Your task to perform on an android device: empty trash in the gmail app Image 0: 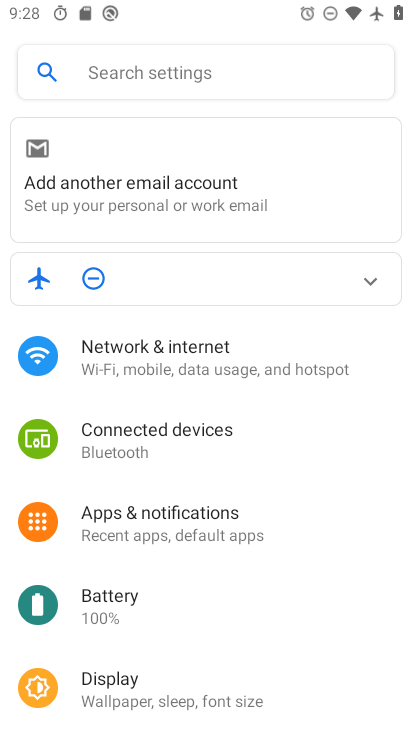
Step 0: press home button
Your task to perform on an android device: empty trash in the gmail app Image 1: 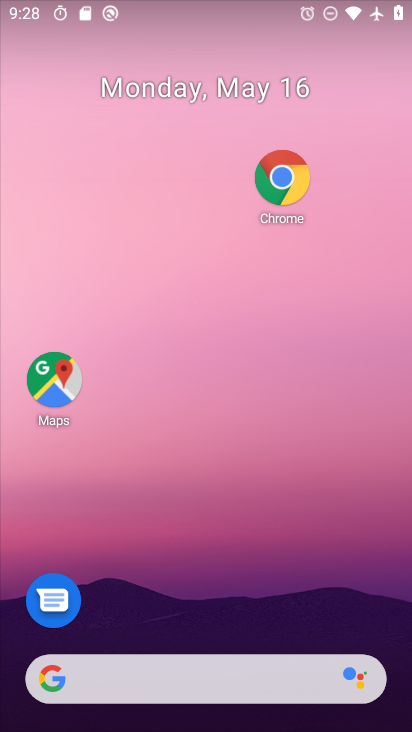
Step 1: drag from (190, 675) to (316, 274)
Your task to perform on an android device: empty trash in the gmail app Image 2: 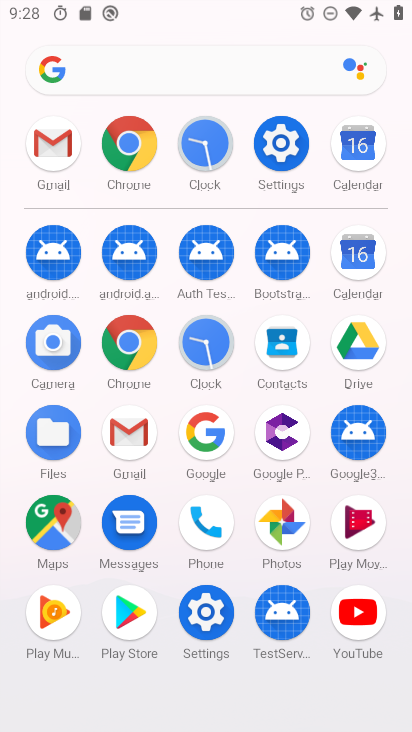
Step 2: click (60, 158)
Your task to perform on an android device: empty trash in the gmail app Image 3: 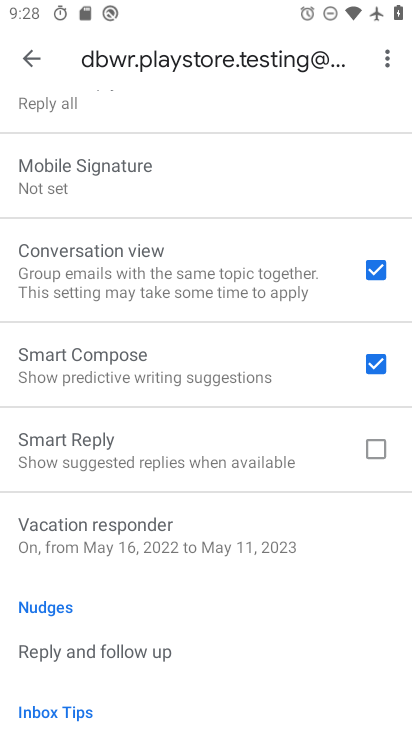
Step 3: click (24, 56)
Your task to perform on an android device: empty trash in the gmail app Image 4: 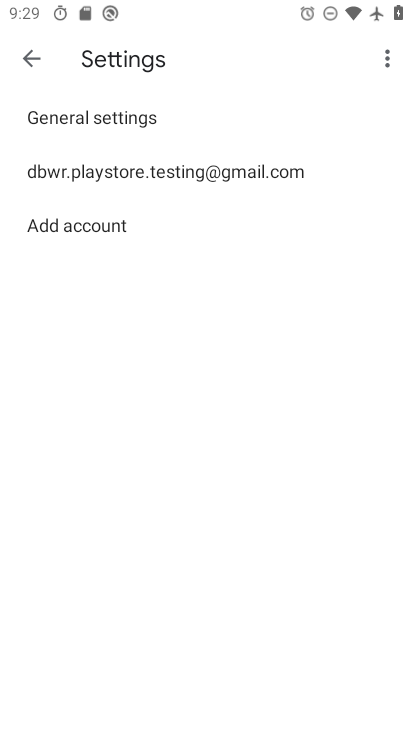
Step 4: click (24, 56)
Your task to perform on an android device: empty trash in the gmail app Image 5: 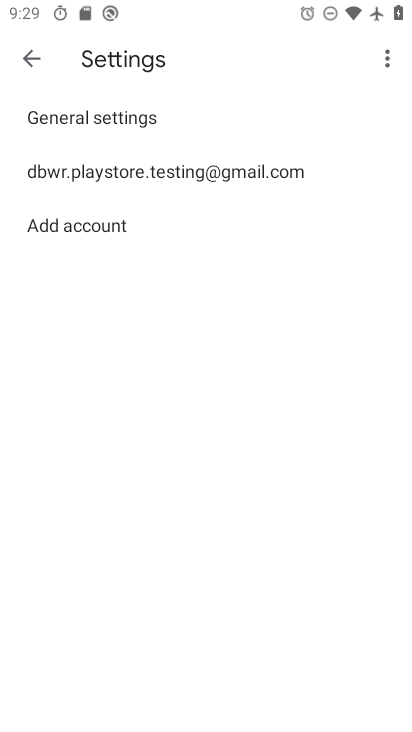
Step 5: click (32, 53)
Your task to perform on an android device: empty trash in the gmail app Image 6: 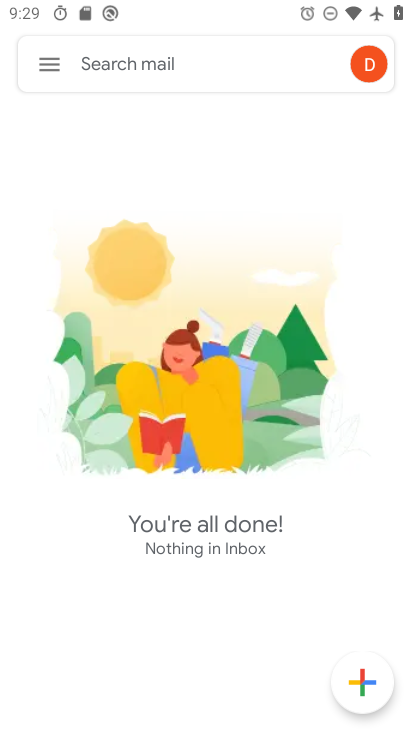
Step 6: click (39, 59)
Your task to perform on an android device: empty trash in the gmail app Image 7: 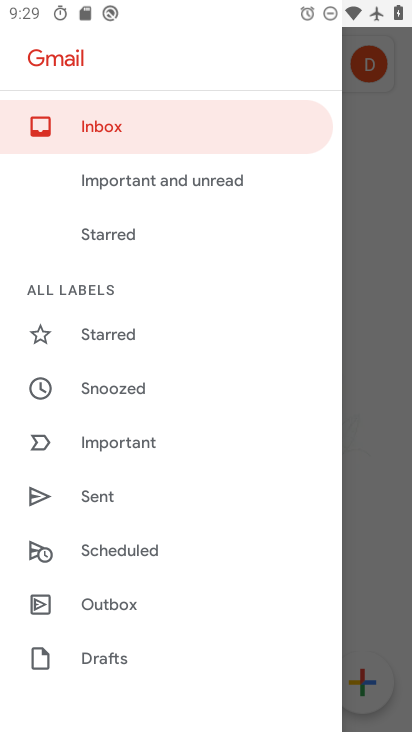
Step 7: drag from (157, 605) to (189, 242)
Your task to perform on an android device: empty trash in the gmail app Image 8: 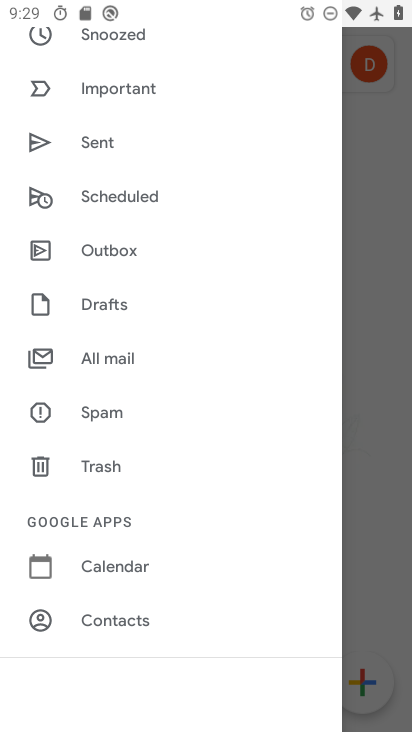
Step 8: click (110, 465)
Your task to perform on an android device: empty trash in the gmail app Image 9: 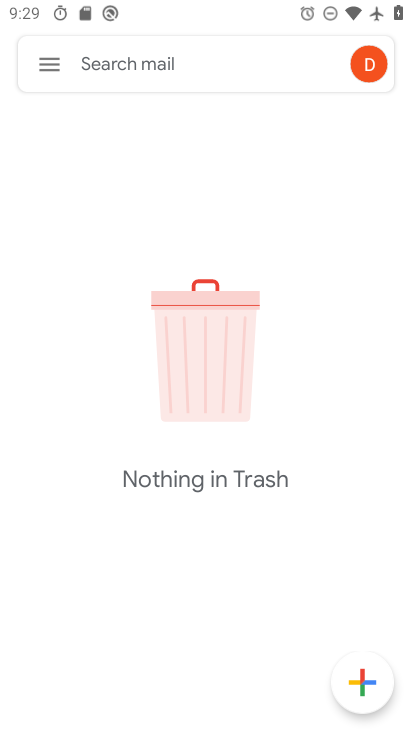
Step 9: task complete